Your task to perform on an android device: Show me some nice wallpapers for my computer Image 0: 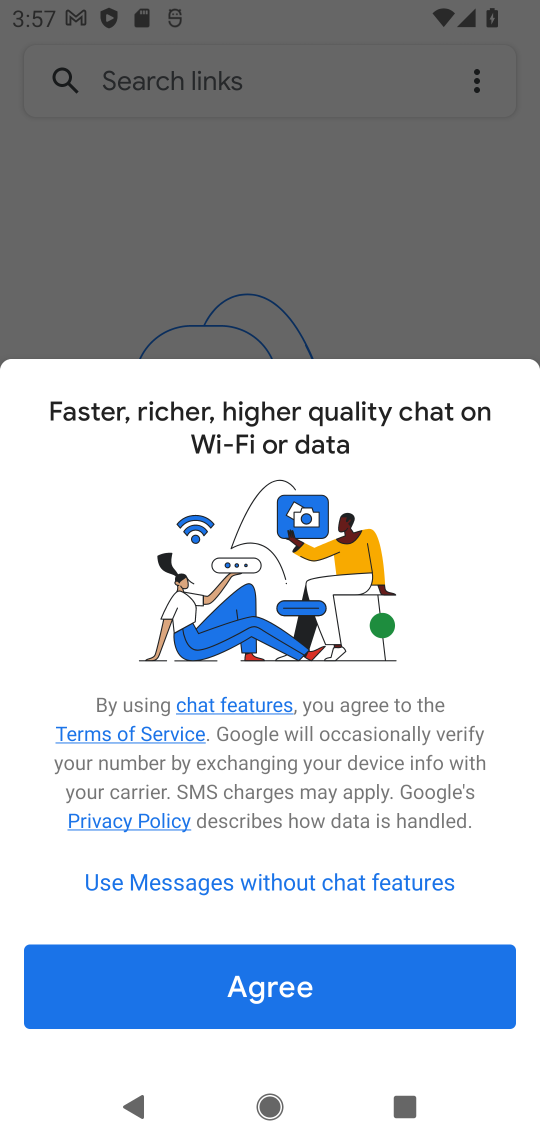
Step 0: press home button
Your task to perform on an android device: Show me some nice wallpapers for my computer Image 1: 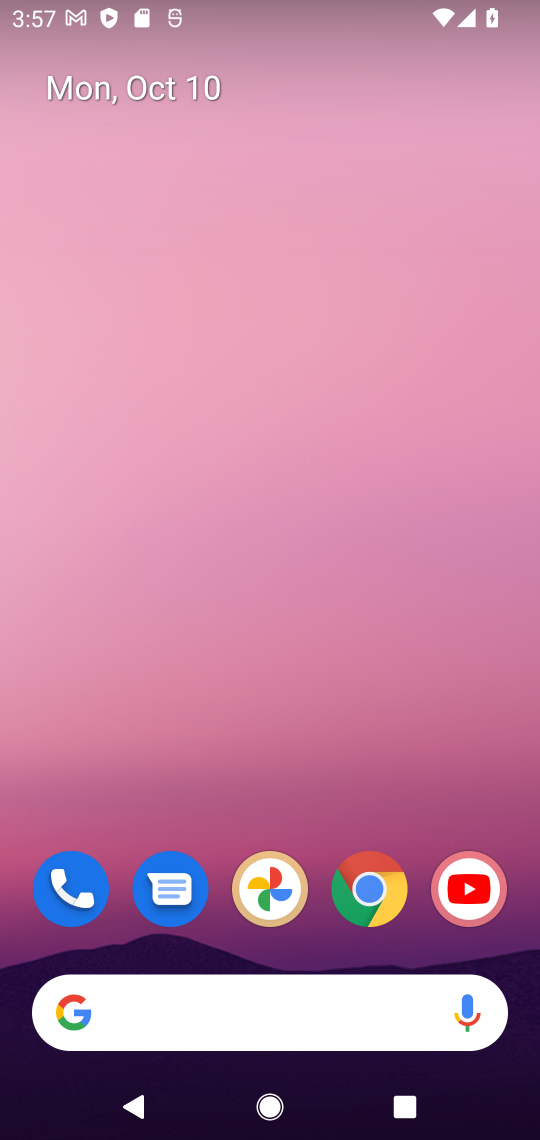
Step 1: click (366, 884)
Your task to perform on an android device: Show me some nice wallpapers for my computer Image 2: 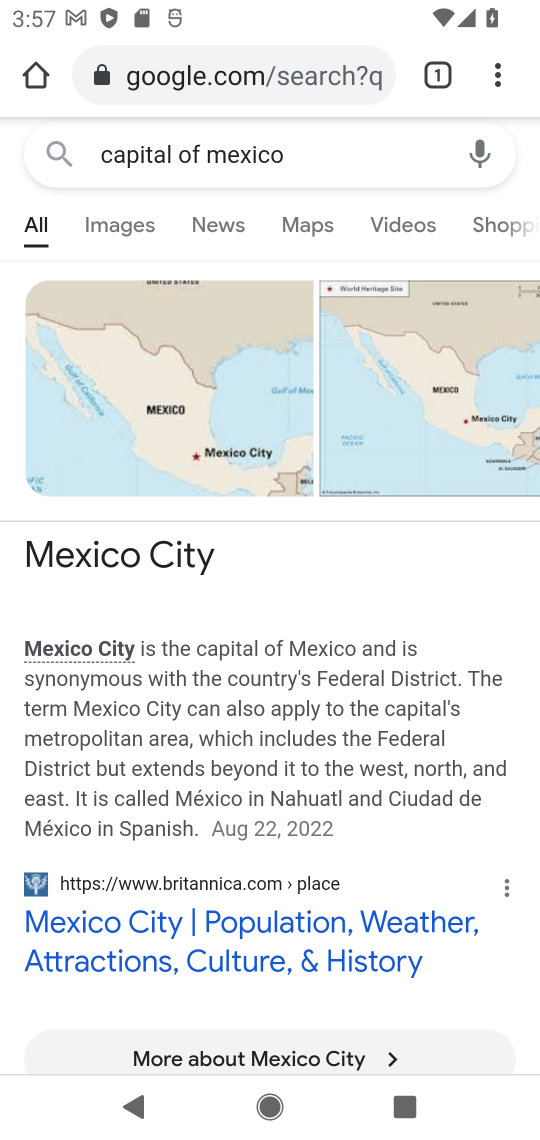
Step 2: click (270, 49)
Your task to perform on an android device: Show me some nice wallpapers for my computer Image 3: 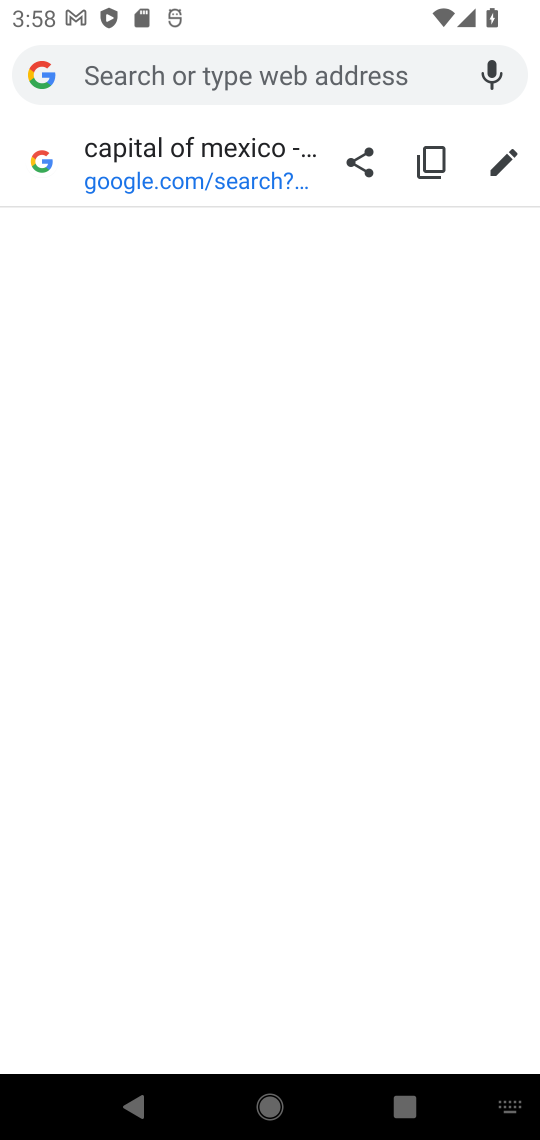
Step 3: type "nice wallpapers for my computer"
Your task to perform on an android device: Show me some nice wallpapers for my computer Image 4: 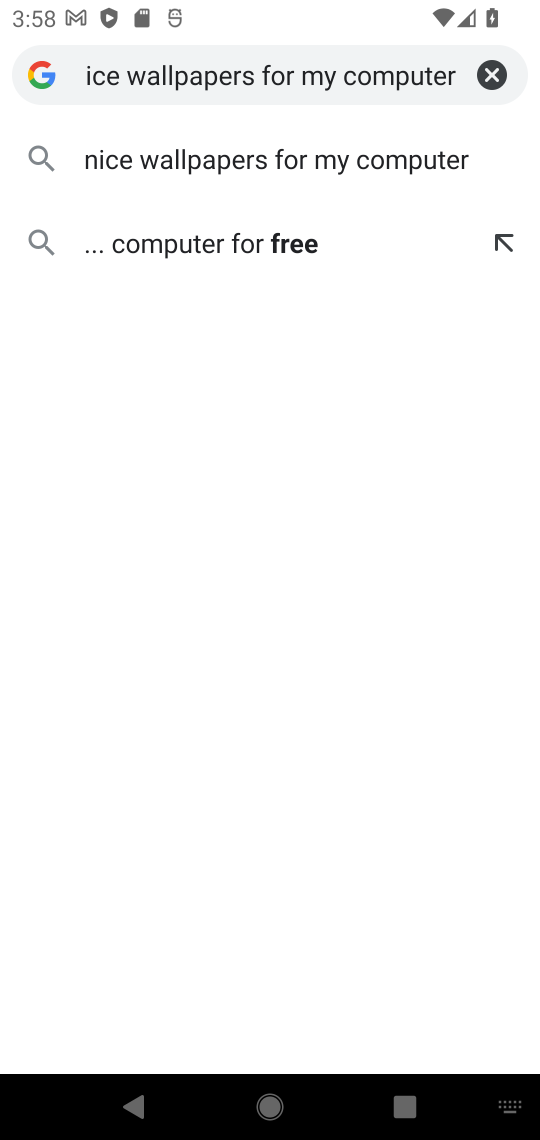
Step 4: click (224, 162)
Your task to perform on an android device: Show me some nice wallpapers for my computer Image 5: 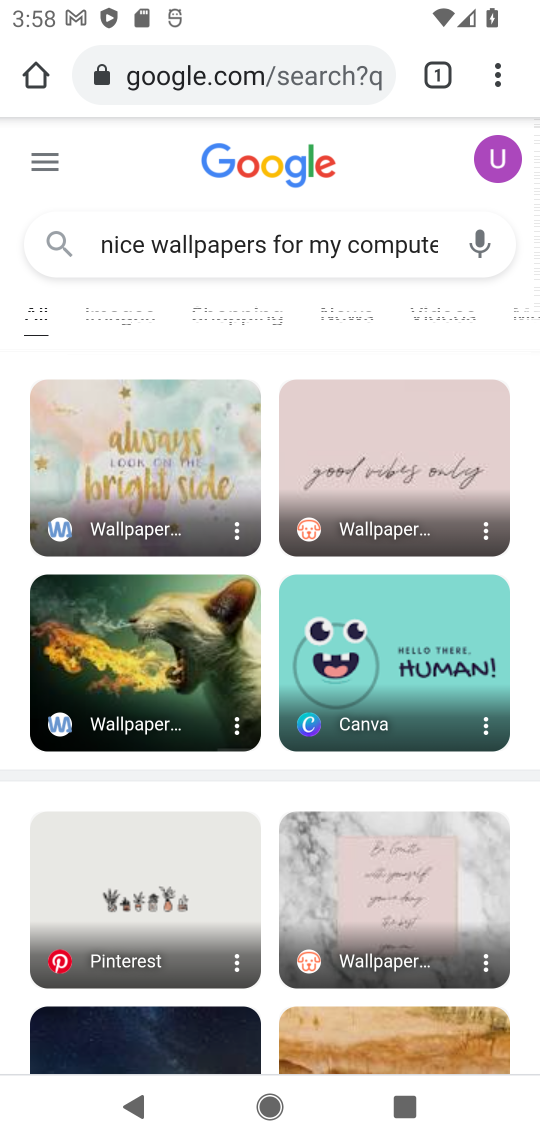
Step 5: drag from (266, 775) to (285, 232)
Your task to perform on an android device: Show me some nice wallpapers for my computer Image 6: 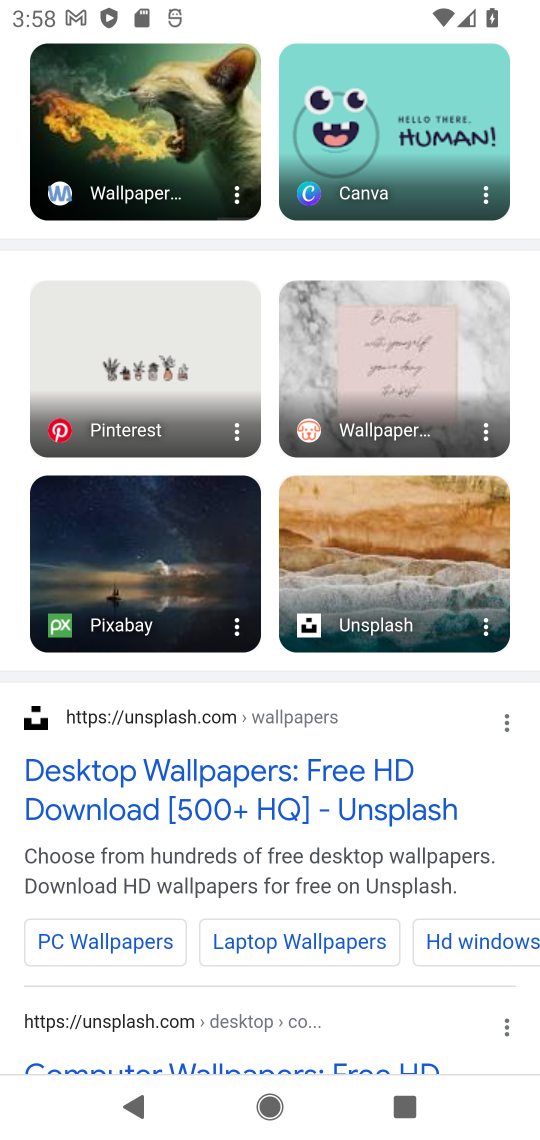
Step 6: drag from (268, 668) to (259, 239)
Your task to perform on an android device: Show me some nice wallpapers for my computer Image 7: 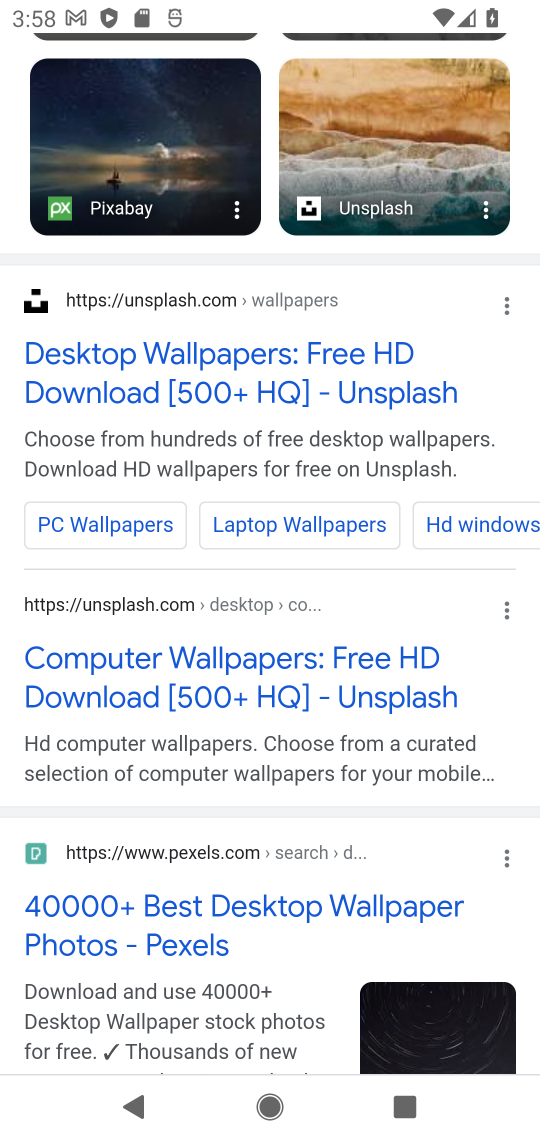
Step 7: click (156, 380)
Your task to perform on an android device: Show me some nice wallpapers for my computer Image 8: 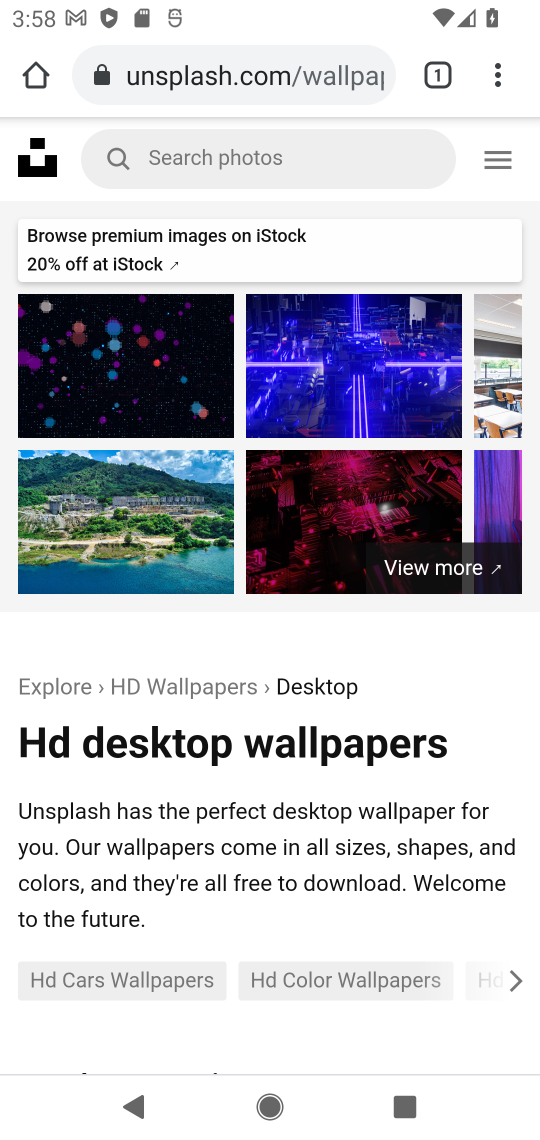
Step 8: task complete